Your task to perform on an android device: Show me popular videos on Youtube Image 0: 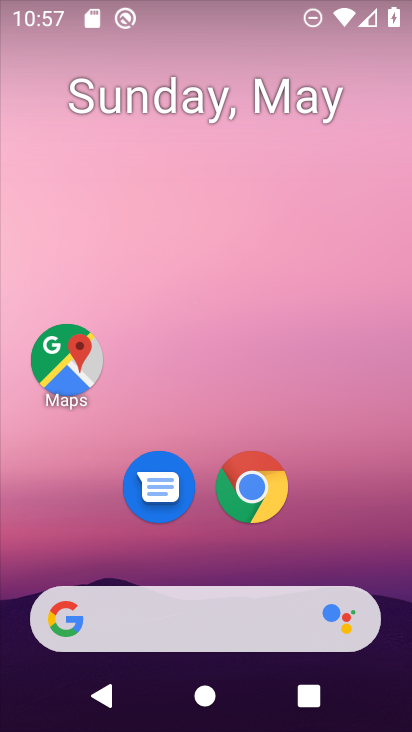
Step 0: drag from (379, 519) to (329, 109)
Your task to perform on an android device: Show me popular videos on Youtube Image 1: 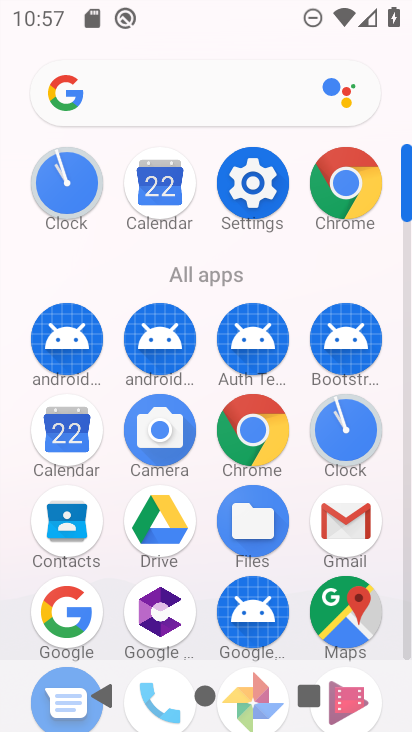
Step 1: click (408, 654)
Your task to perform on an android device: Show me popular videos on Youtube Image 2: 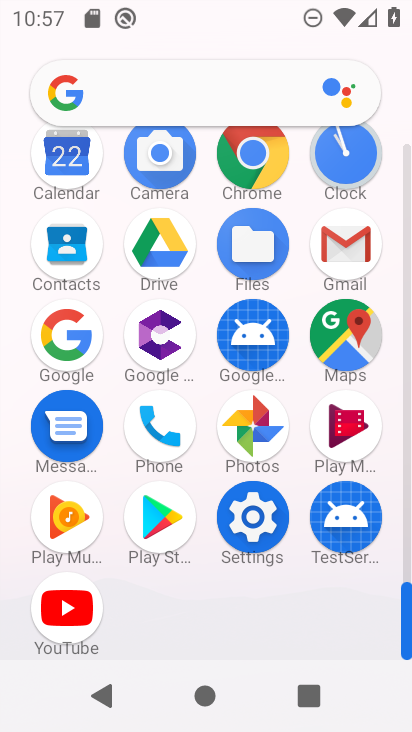
Step 2: click (89, 617)
Your task to perform on an android device: Show me popular videos on Youtube Image 3: 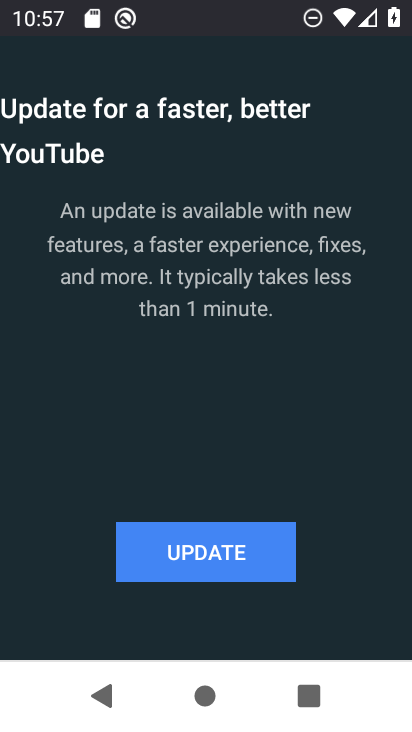
Step 3: click (181, 592)
Your task to perform on an android device: Show me popular videos on Youtube Image 4: 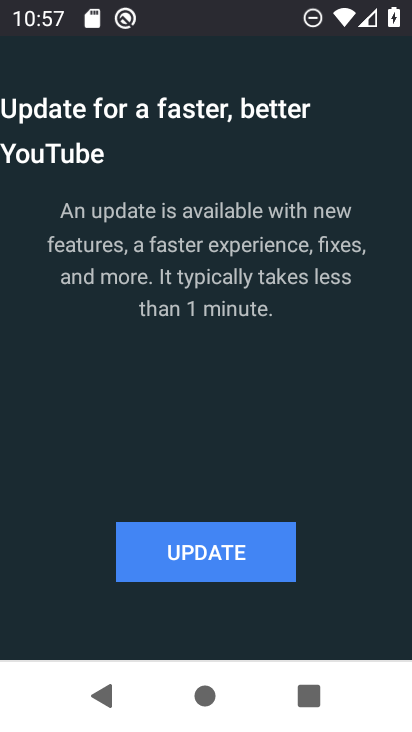
Step 4: click (189, 580)
Your task to perform on an android device: Show me popular videos on Youtube Image 5: 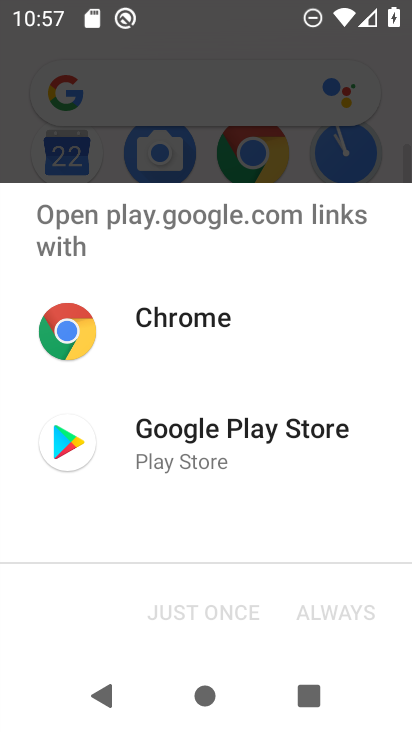
Step 5: click (191, 463)
Your task to perform on an android device: Show me popular videos on Youtube Image 6: 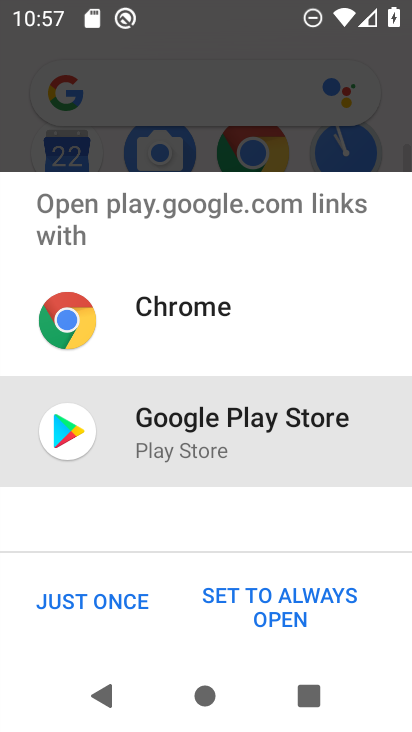
Step 6: click (143, 591)
Your task to perform on an android device: Show me popular videos on Youtube Image 7: 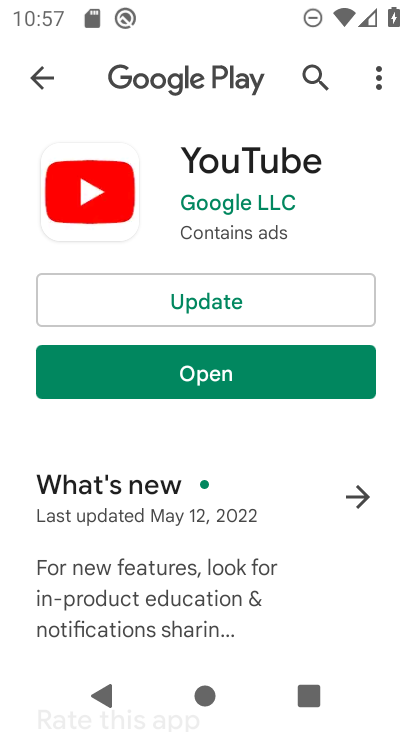
Step 7: click (241, 304)
Your task to perform on an android device: Show me popular videos on Youtube Image 8: 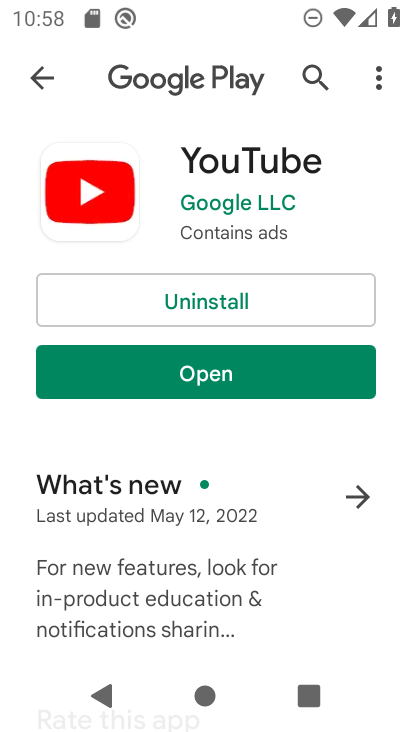
Step 8: click (242, 394)
Your task to perform on an android device: Show me popular videos on Youtube Image 9: 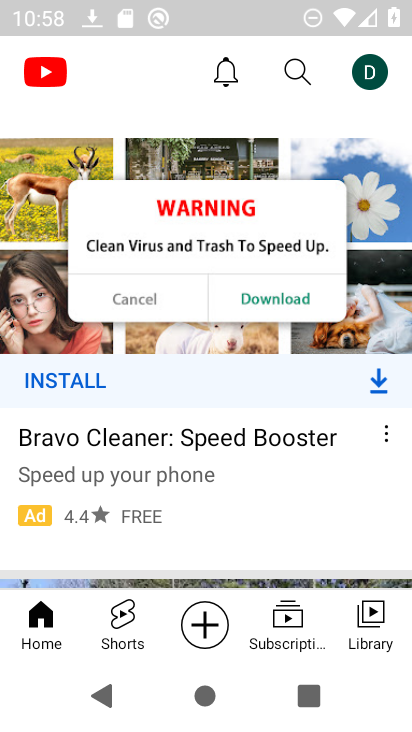
Step 9: click (141, 632)
Your task to perform on an android device: Show me popular videos on Youtube Image 10: 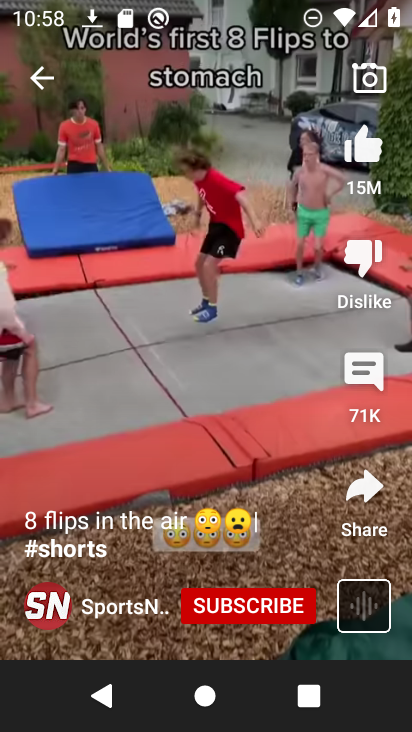
Step 10: click (99, 690)
Your task to perform on an android device: Show me popular videos on Youtube Image 11: 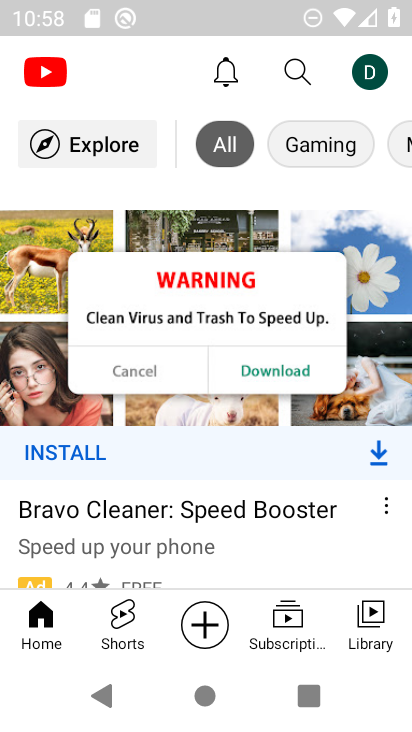
Step 11: click (293, 615)
Your task to perform on an android device: Show me popular videos on Youtube Image 12: 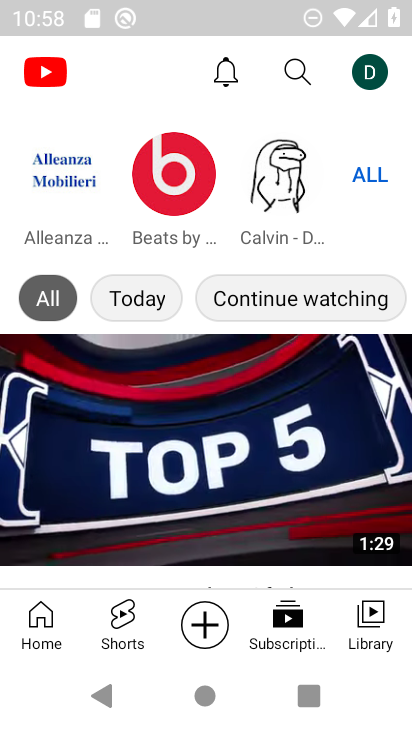
Step 12: task complete